Your task to perform on an android device: change text size in settings app Image 0: 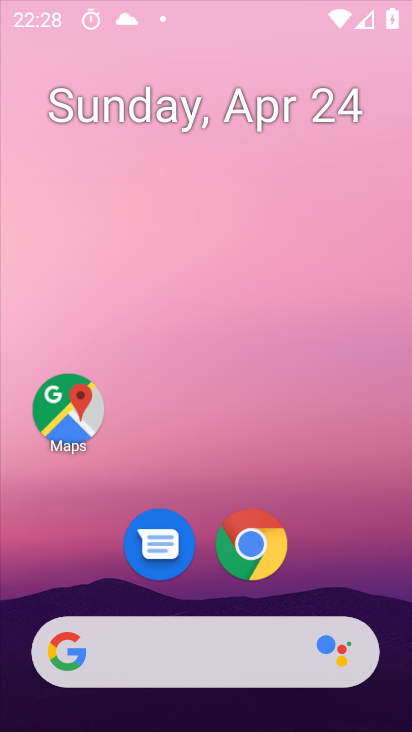
Step 0: click (343, 174)
Your task to perform on an android device: change text size in settings app Image 1: 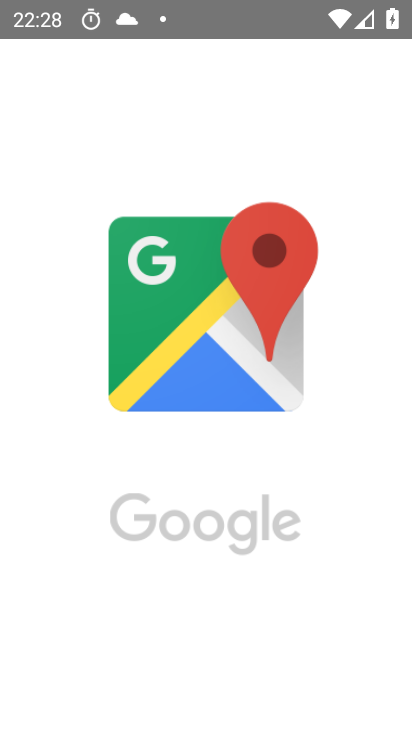
Step 1: drag from (205, 422) to (226, 212)
Your task to perform on an android device: change text size in settings app Image 2: 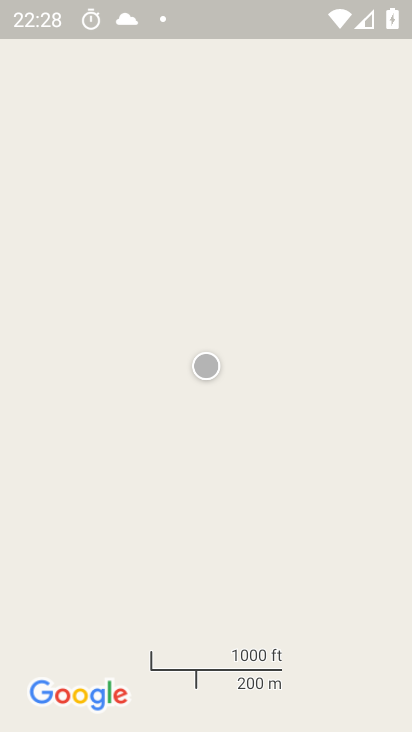
Step 2: press home button
Your task to perform on an android device: change text size in settings app Image 3: 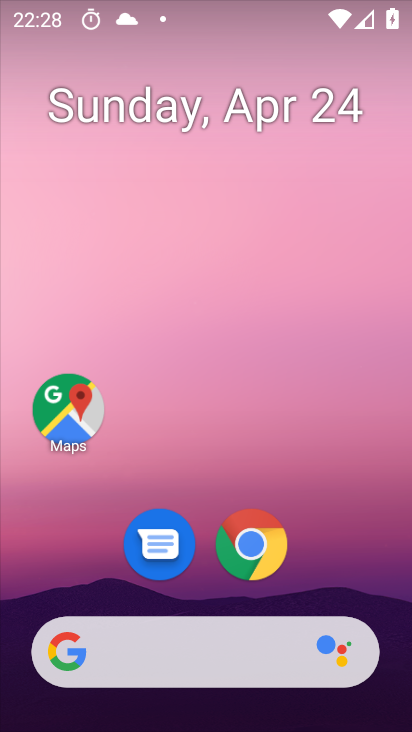
Step 3: drag from (335, 534) to (326, 215)
Your task to perform on an android device: change text size in settings app Image 4: 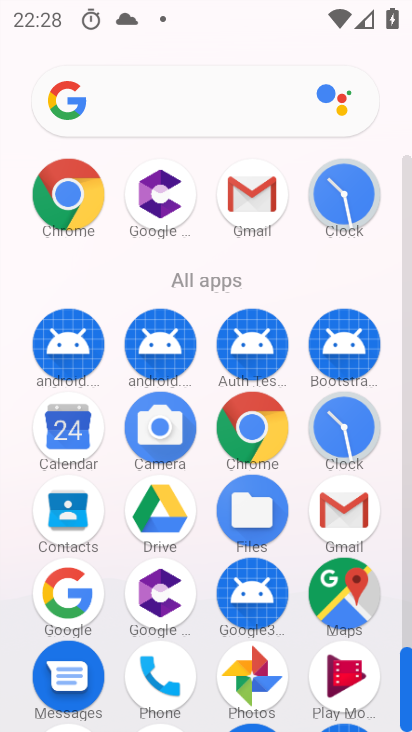
Step 4: click (253, 431)
Your task to perform on an android device: change text size in settings app Image 5: 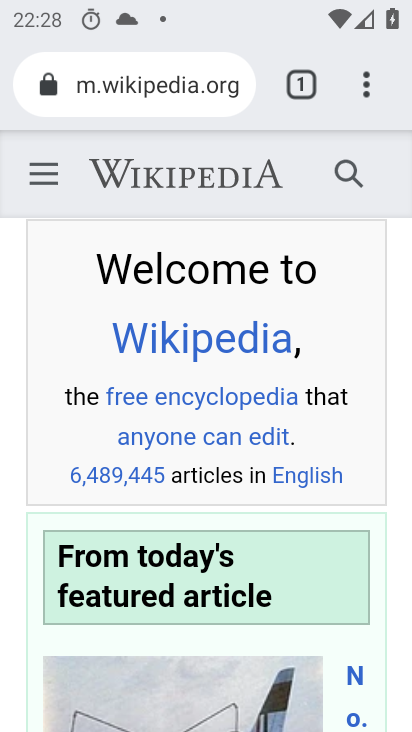
Step 5: click (350, 79)
Your task to perform on an android device: change text size in settings app Image 6: 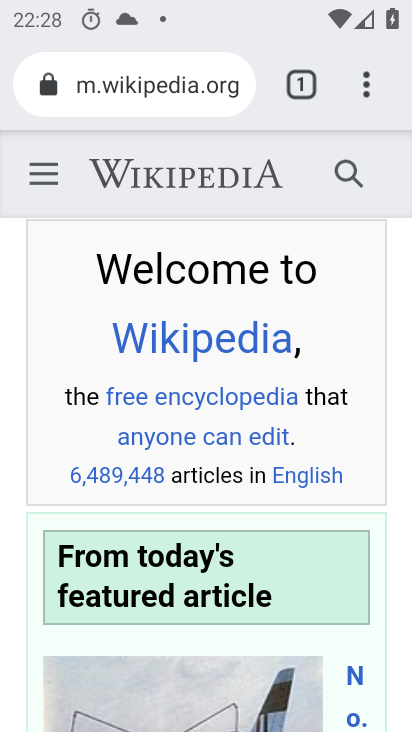
Step 6: click (346, 86)
Your task to perform on an android device: change text size in settings app Image 7: 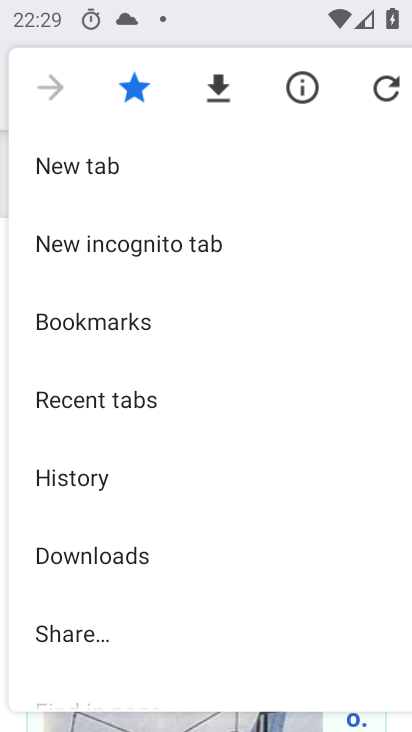
Step 7: drag from (153, 580) to (219, 211)
Your task to perform on an android device: change text size in settings app Image 8: 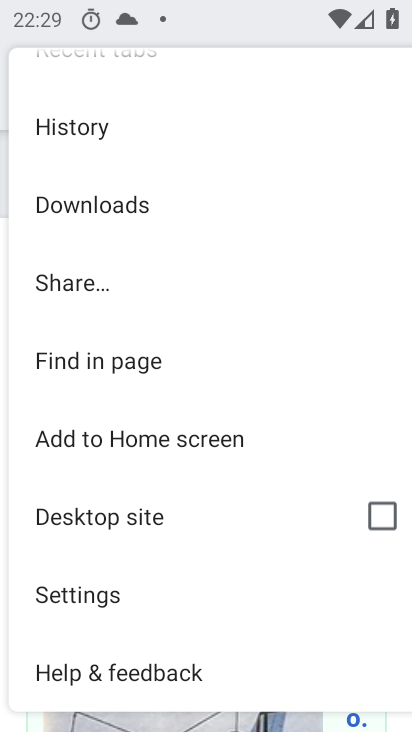
Step 8: click (152, 597)
Your task to perform on an android device: change text size in settings app Image 9: 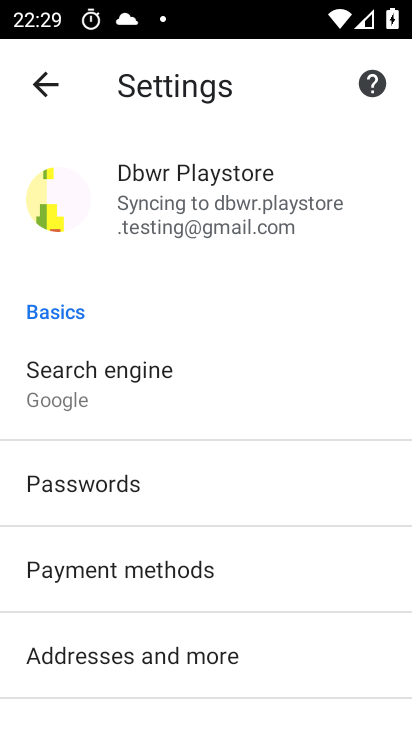
Step 9: drag from (227, 646) to (312, 267)
Your task to perform on an android device: change text size in settings app Image 10: 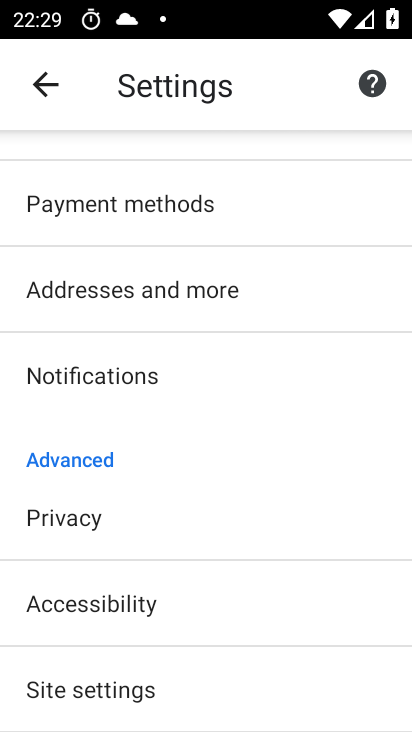
Step 10: drag from (203, 645) to (260, 241)
Your task to perform on an android device: change text size in settings app Image 11: 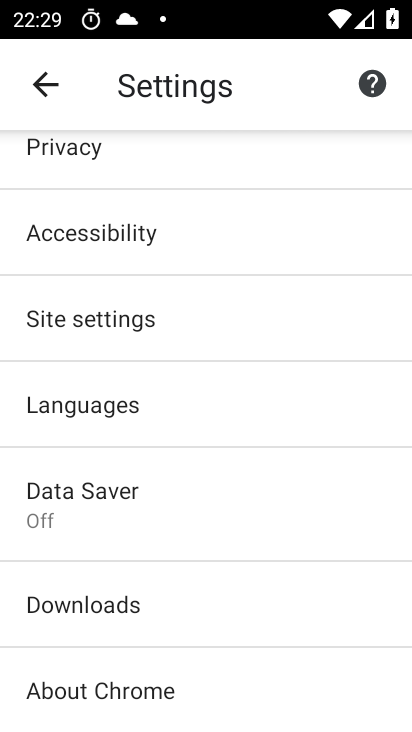
Step 11: drag from (182, 605) to (273, 233)
Your task to perform on an android device: change text size in settings app Image 12: 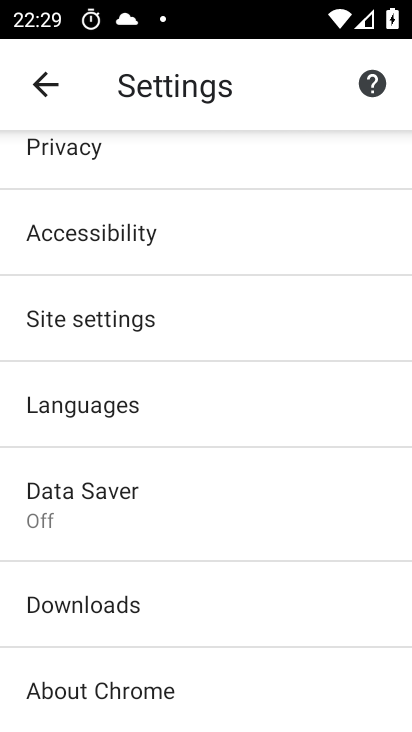
Step 12: press home button
Your task to perform on an android device: change text size in settings app Image 13: 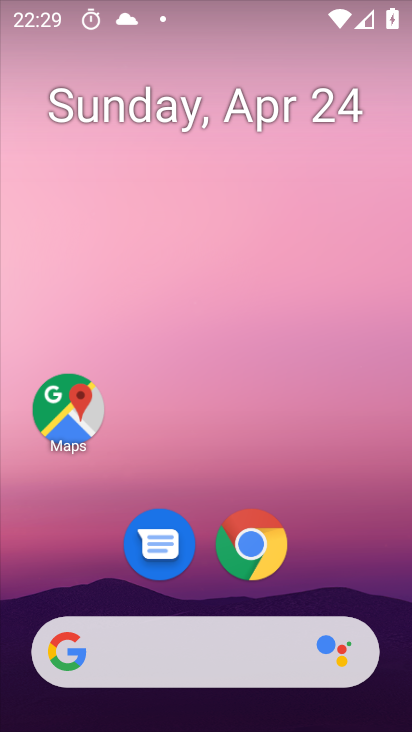
Step 13: drag from (353, 461) to (350, 182)
Your task to perform on an android device: change text size in settings app Image 14: 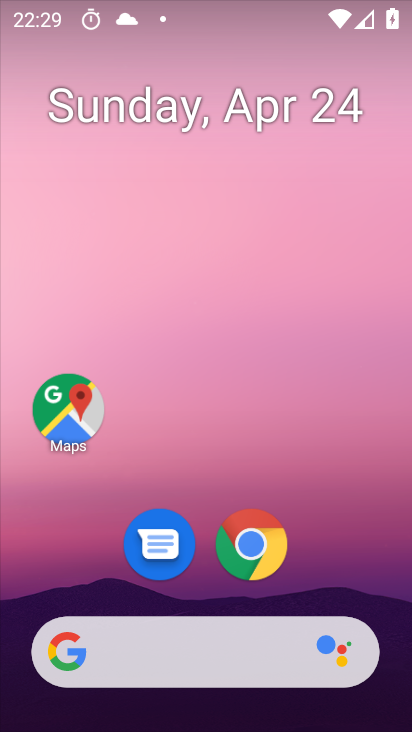
Step 14: drag from (313, 401) to (311, 121)
Your task to perform on an android device: change text size in settings app Image 15: 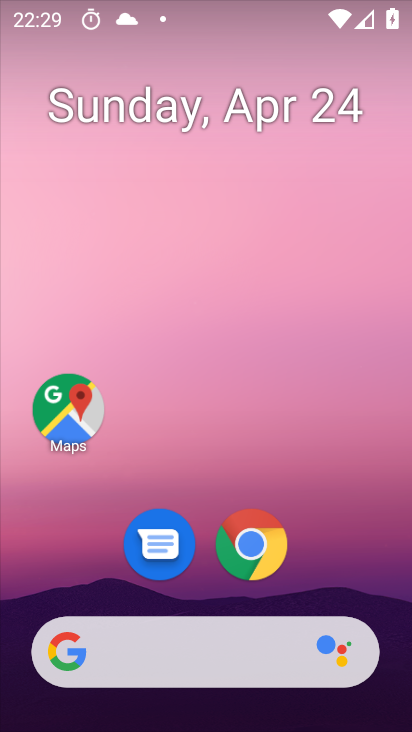
Step 15: drag from (296, 562) to (326, 96)
Your task to perform on an android device: change text size in settings app Image 16: 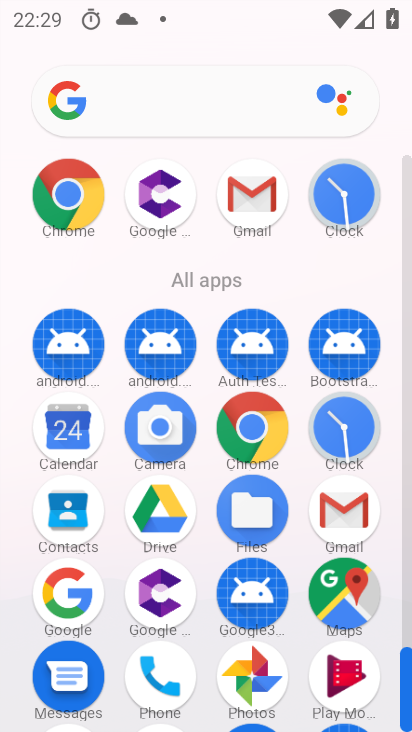
Step 16: drag from (191, 630) to (237, 163)
Your task to perform on an android device: change text size in settings app Image 17: 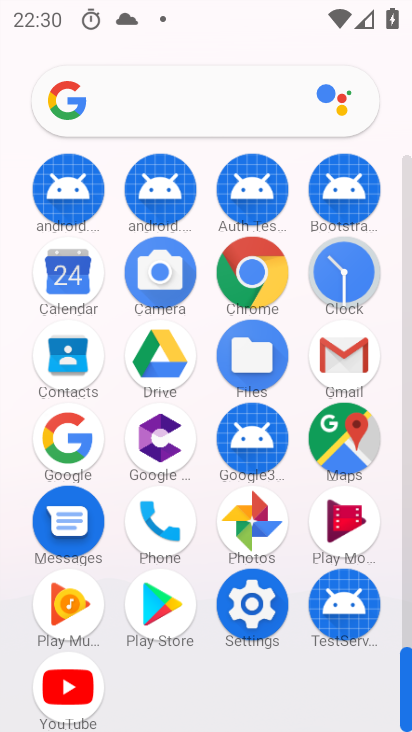
Step 17: click (243, 597)
Your task to perform on an android device: change text size in settings app Image 18: 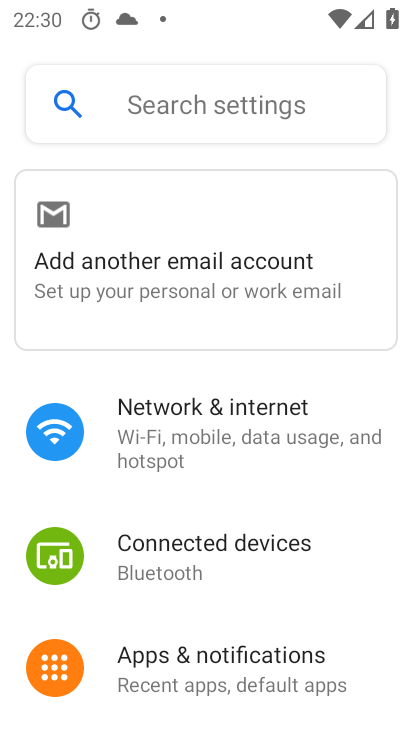
Step 18: drag from (248, 634) to (324, 122)
Your task to perform on an android device: change text size in settings app Image 19: 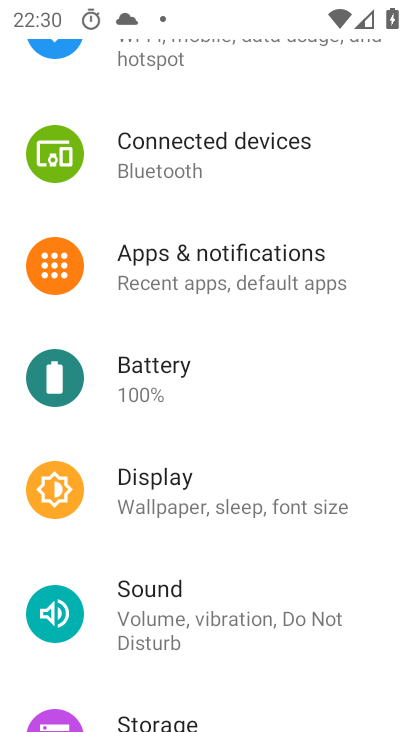
Step 19: drag from (259, 635) to (285, 156)
Your task to perform on an android device: change text size in settings app Image 20: 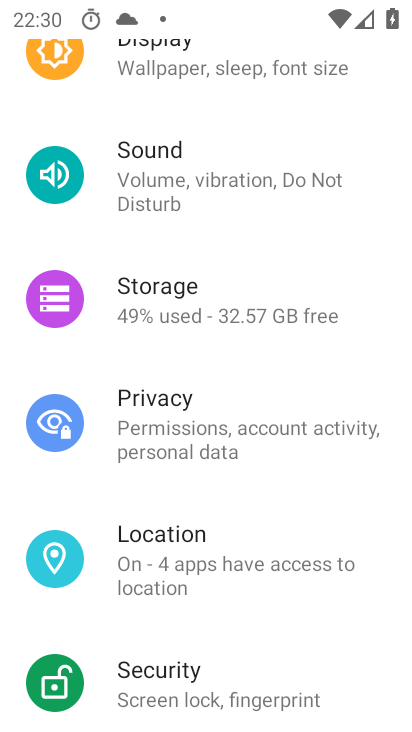
Step 20: drag from (197, 659) to (262, 158)
Your task to perform on an android device: change text size in settings app Image 21: 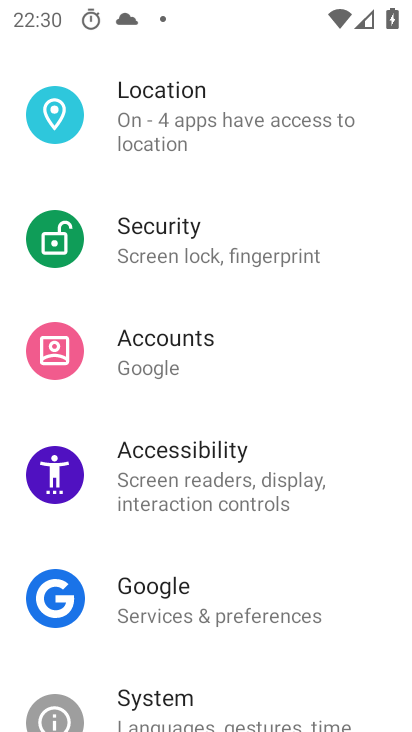
Step 21: drag from (183, 708) to (219, 456)
Your task to perform on an android device: change text size in settings app Image 22: 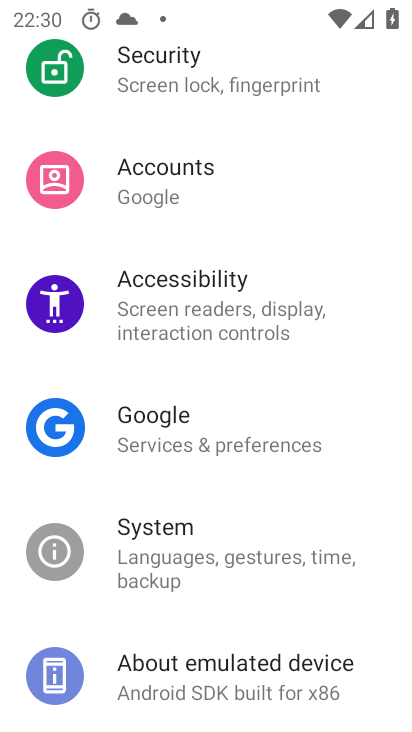
Step 22: click (215, 305)
Your task to perform on an android device: change text size in settings app Image 23: 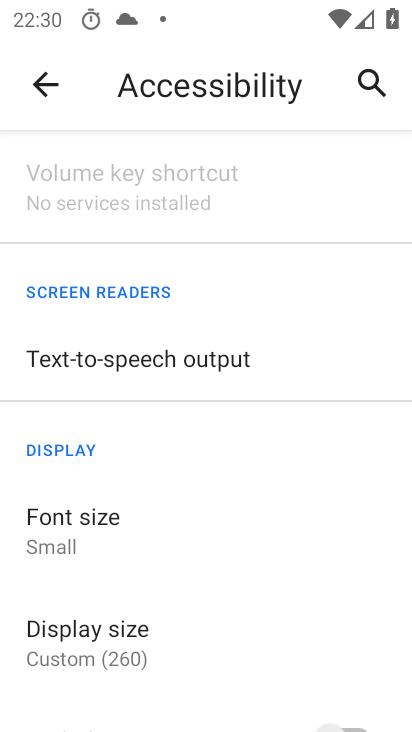
Step 23: click (65, 520)
Your task to perform on an android device: change text size in settings app Image 24: 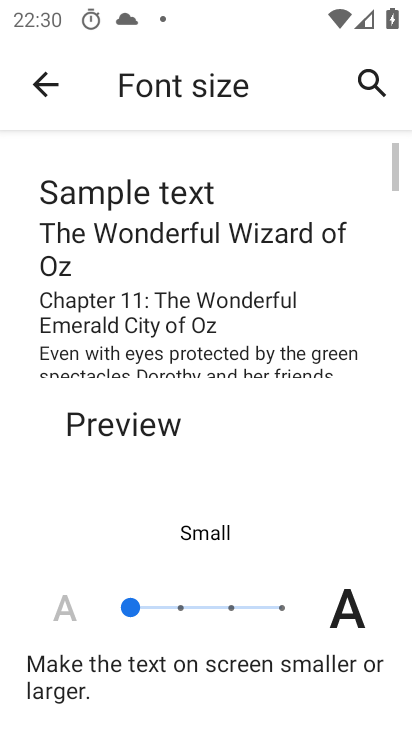
Step 24: click (232, 598)
Your task to perform on an android device: change text size in settings app Image 25: 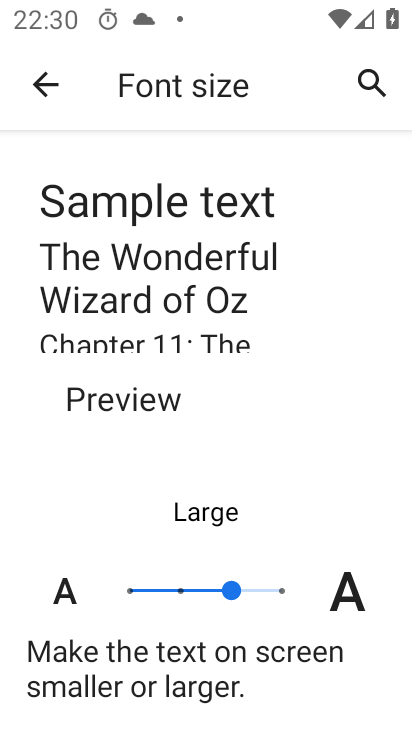
Step 25: task complete